Your task to perform on an android device: Show me popular games on the Play Store Image 0: 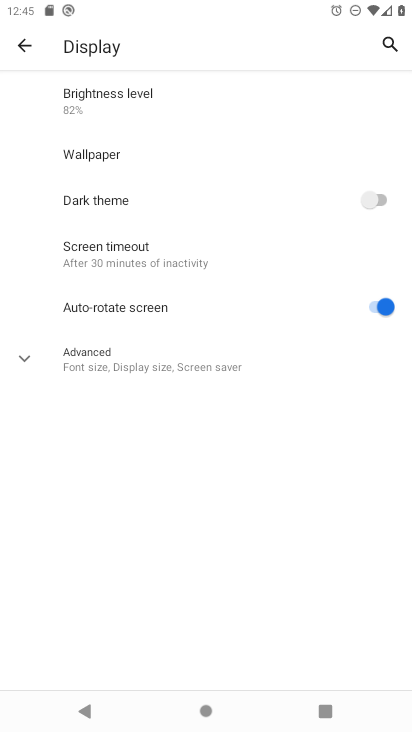
Step 0: press home button
Your task to perform on an android device: Show me popular games on the Play Store Image 1: 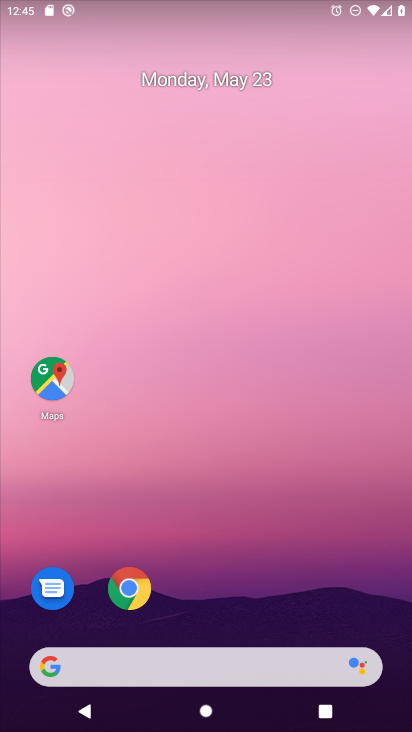
Step 1: drag from (249, 694) to (237, 72)
Your task to perform on an android device: Show me popular games on the Play Store Image 2: 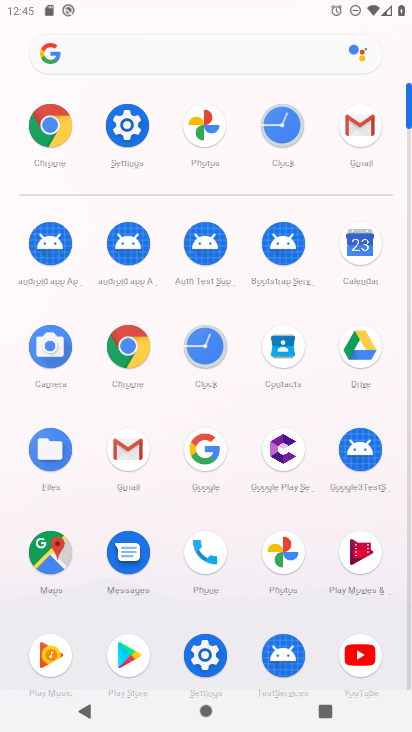
Step 2: click (126, 649)
Your task to perform on an android device: Show me popular games on the Play Store Image 3: 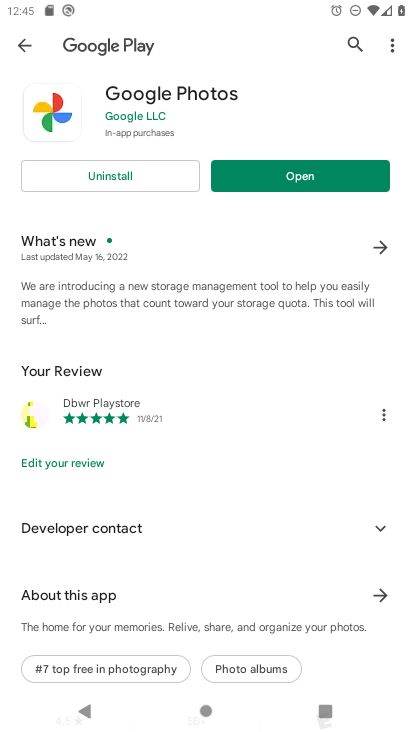
Step 3: click (356, 50)
Your task to perform on an android device: Show me popular games on the Play Store Image 4: 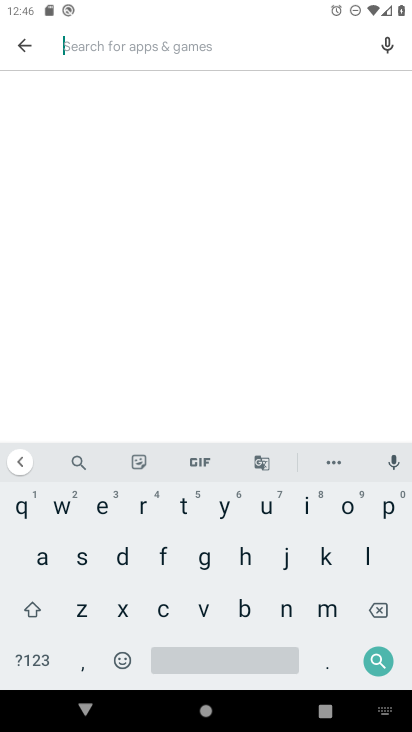
Step 4: click (379, 512)
Your task to perform on an android device: Show me popular games on the Play Store Image 5: 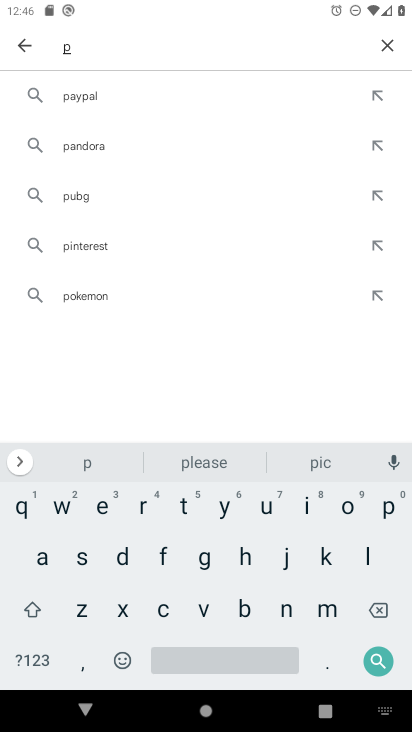
Step 5: click (341, 505)
Your task to perform on an android device: Show me popular games on the Play Store Image 6: 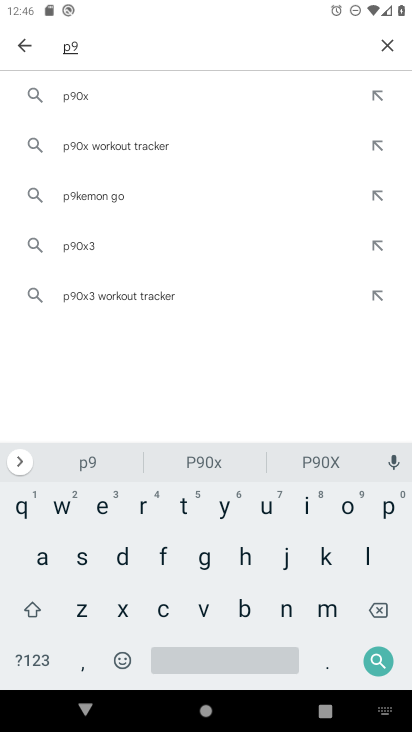
Step 6: click (383, 613)
Your task to perform on an android device: Show me popular games on the Play Store Image 7: 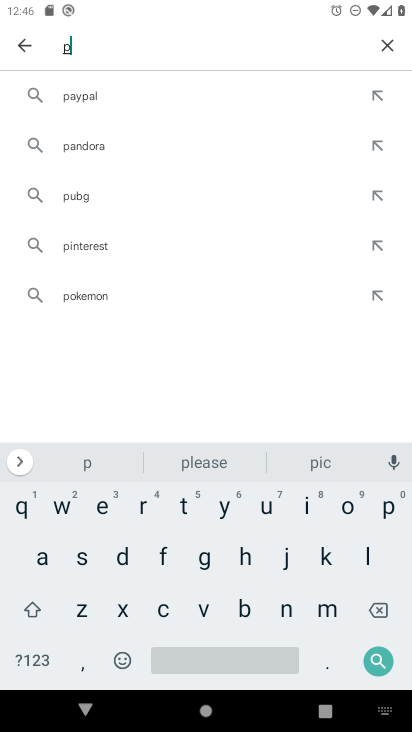
Step 7: click (344, 512)
Your task to perform on an android device: Show me popular games on the Play Store Image 8: 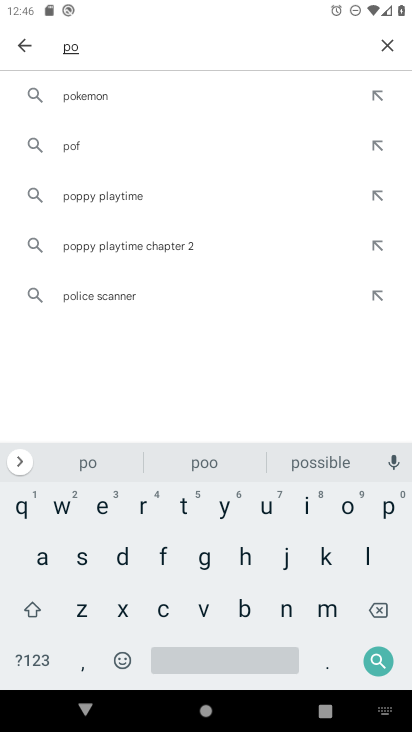
Step 8: click (386, 511)
Your task to perform on an android device: Show me popular games on the Play Store Image 9: 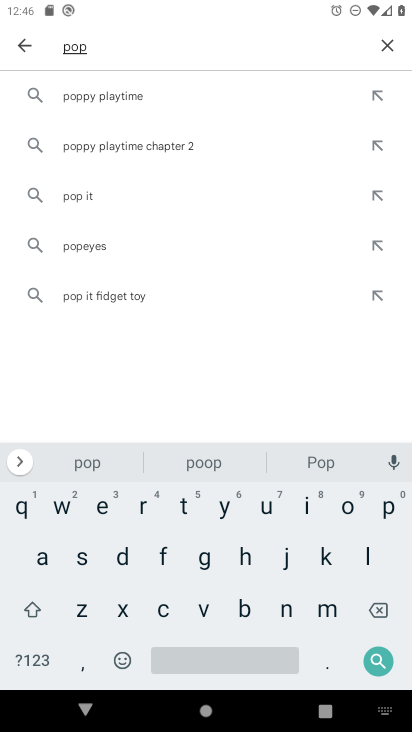
Step 9: click (265, 502)
Your task to perform on an android device: Show me popular games on the Play Store Image 10: 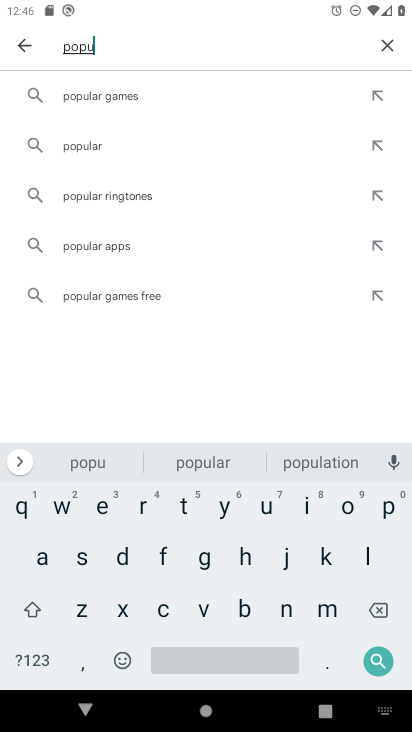
Step 10: click (97, 103)
Your task to perform on an android device: Show me popular games on the Play Store Image 11: 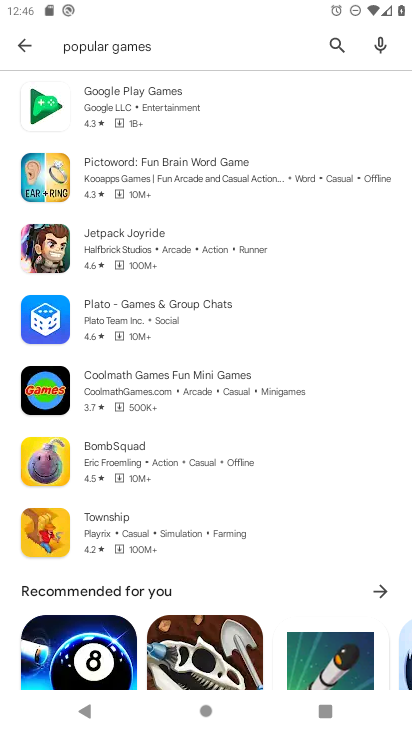
Step 11: task complete